Your task to perform on an android device: Open the stopwatch Image 0: 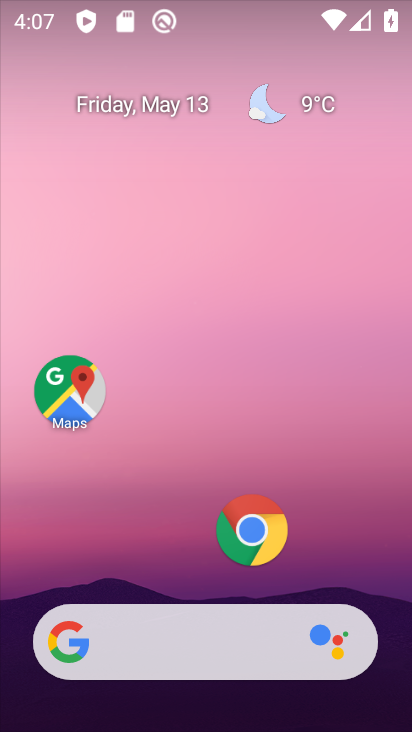
Step 0: press home button
Your task to perform on an android device: Open the stopwatch Image 1: 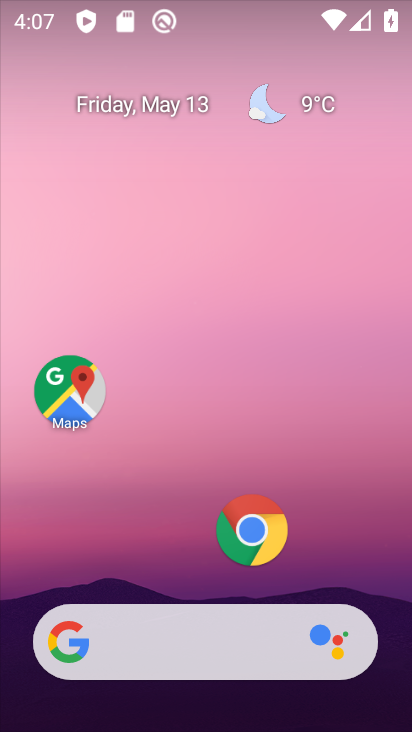
Step 1: drag from (205, 582) to (240, 60)
Your task to perform on an android device: Open the stopwatch Image 2: 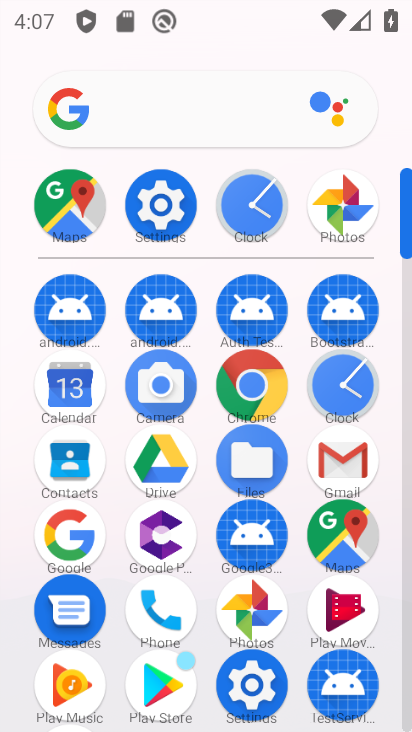
Step 2: click (338, 380)
Your task to perform on an android device: Open the stopwatch Image 3: 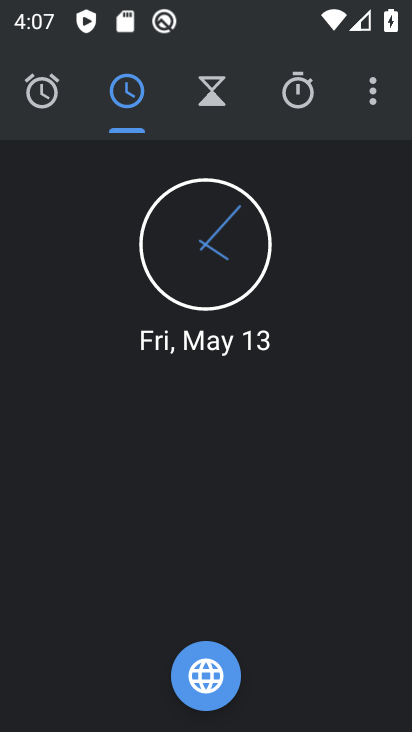
Step 3: click (376, 93)
Your task to perform on an android device: Open the stopwatch Image 4: 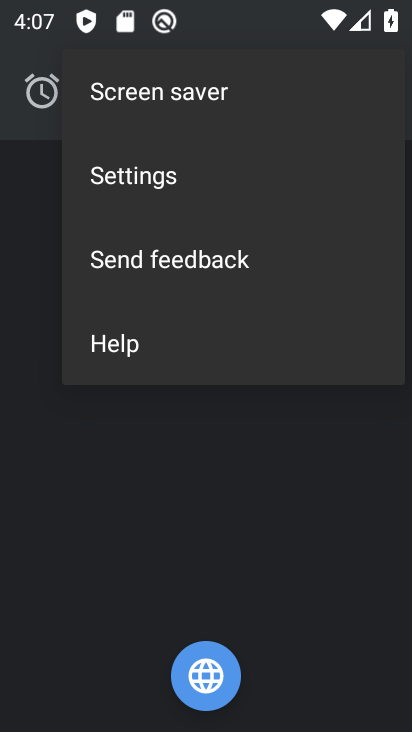
Step 4: click (213, 501)
Your task to perform on an android device: Open the stopwatch Image 5: 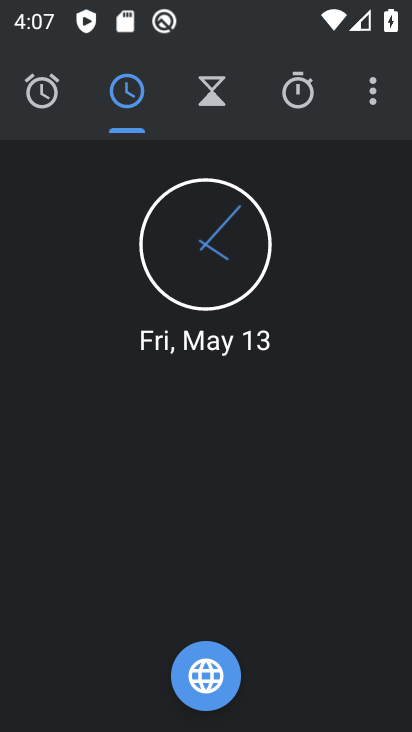
Step 5: click (297, 88)
Your task to perform on an android device: Open the stopwatch Image 6: 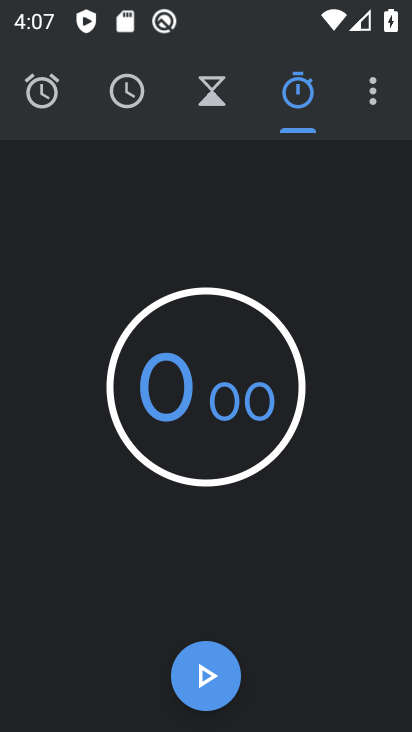
Step 6: click (206, 670)
Your task to perform on an android device: Open the stopwatch Image 7: 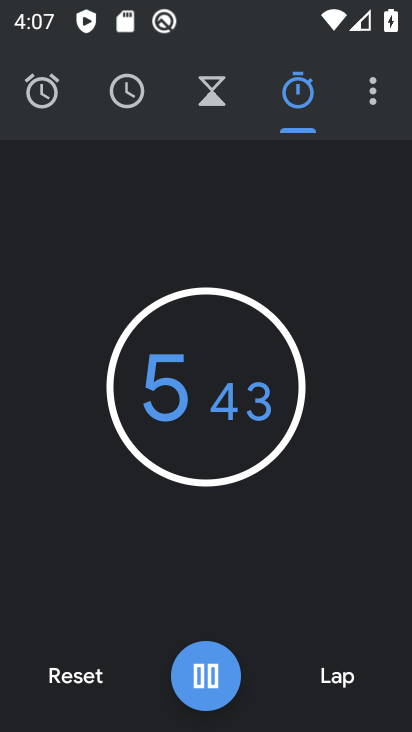
Step 7: task complete